Your task to perform on an android device: Open Yahoo.com Image 0: 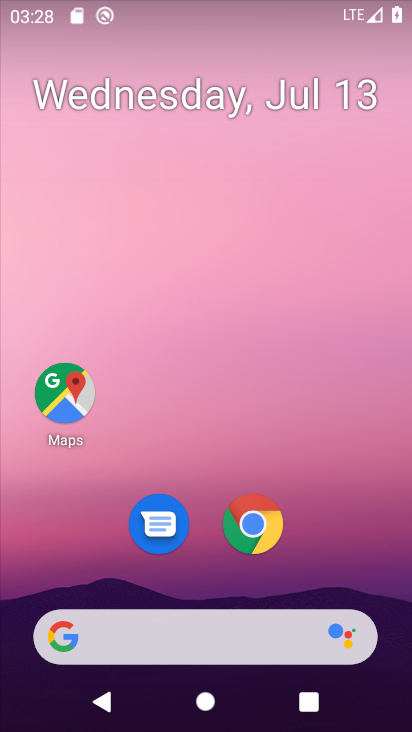
Step 0: click (225, 629)
Your task to perform on an android device: Open Yahoo.com Image 1: 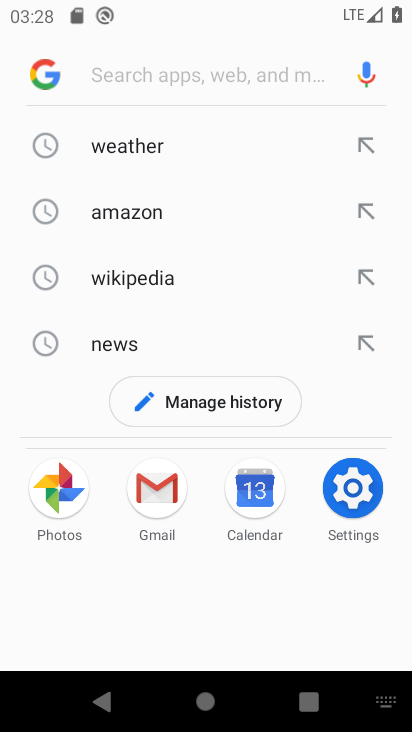
Step 1: type "yahoo.com"
Your task to perform on an android device: Open Yahoo.com Image 2: 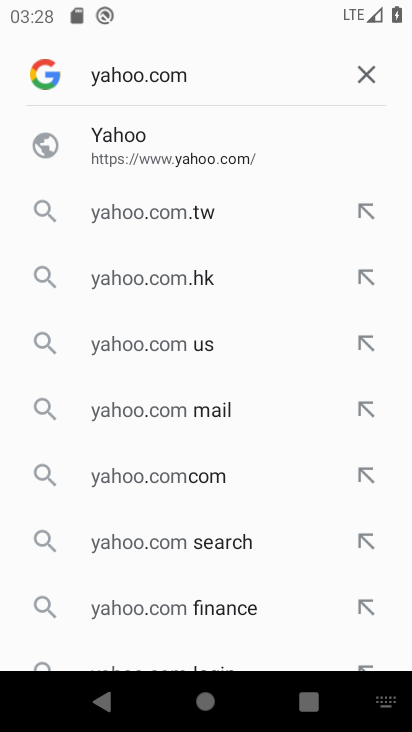
Step 2: click (119, 138)
Your task to perform on an android device: Open Yahoo.com Image 3: 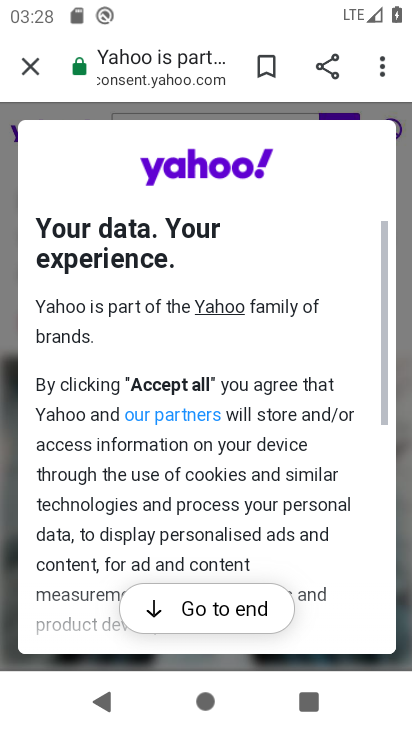
Step 3: click (232, 607)
Your task to perform on an android device: Open Yahoo.com Image 4: 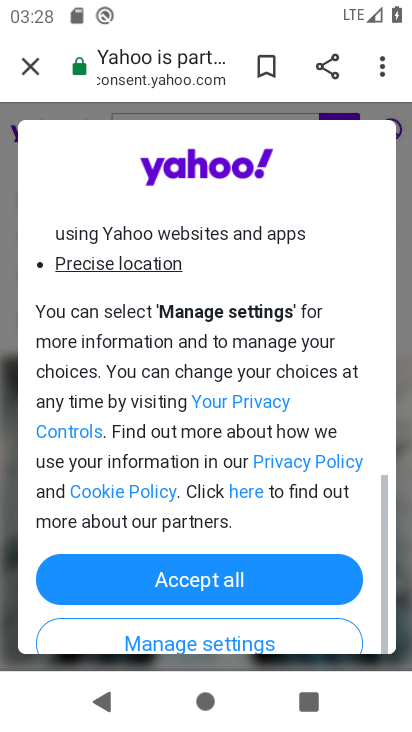
Step 4: click (249, 586)
Your task to perform on an android device: Open Yahoo.com Image 5: 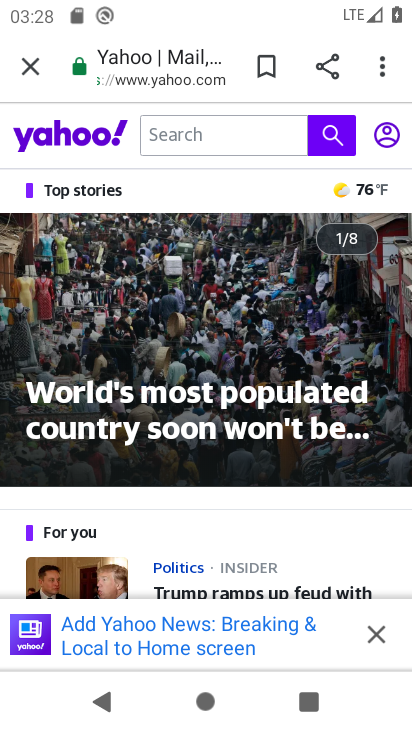
Step 5: task complete